Your task to perform on an android device: Empty the shopping cart on amazon. Add "logitech g502" to the cart on amazon, then select checkout. Image 0: 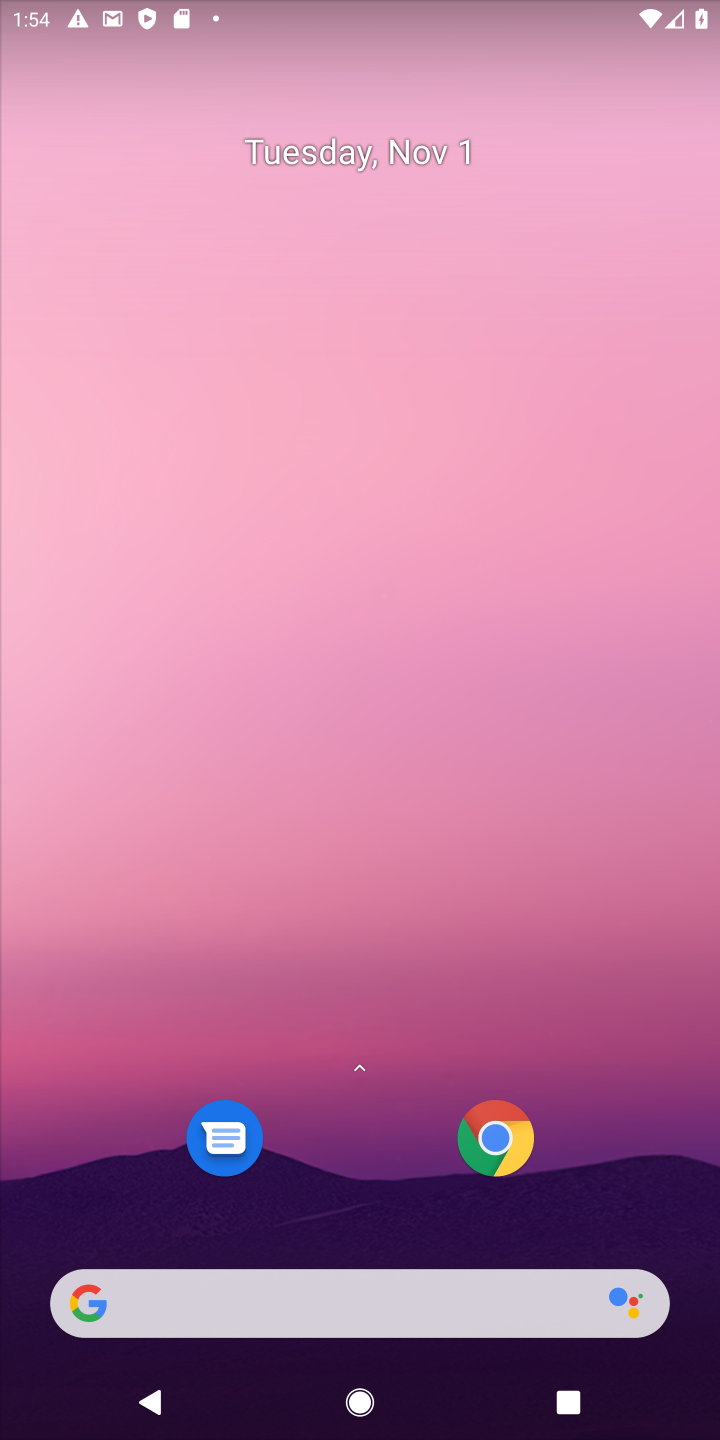
Step 0: drag from (395, 1218) to (457, 111)
Your task to perform on an android device: Empty the shopping cart on amazon. Add "logitech g502" to the cart on amazon, then select checkout. Image 1: 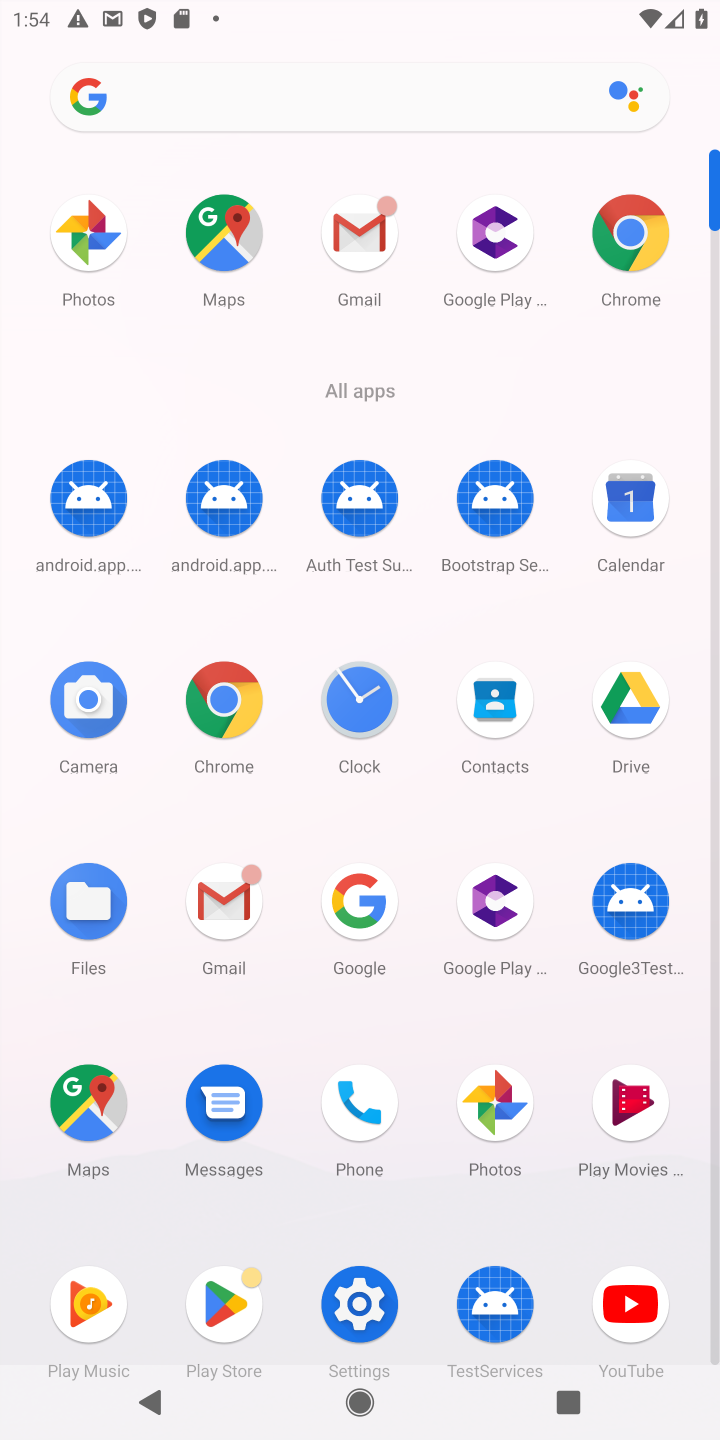
Step 1: click (234, 688)
Your task to perform on an android device: Empty the shopping cart on amazon. Add "logitech g502" to the cart on amazon, then select checkout. Image 2: 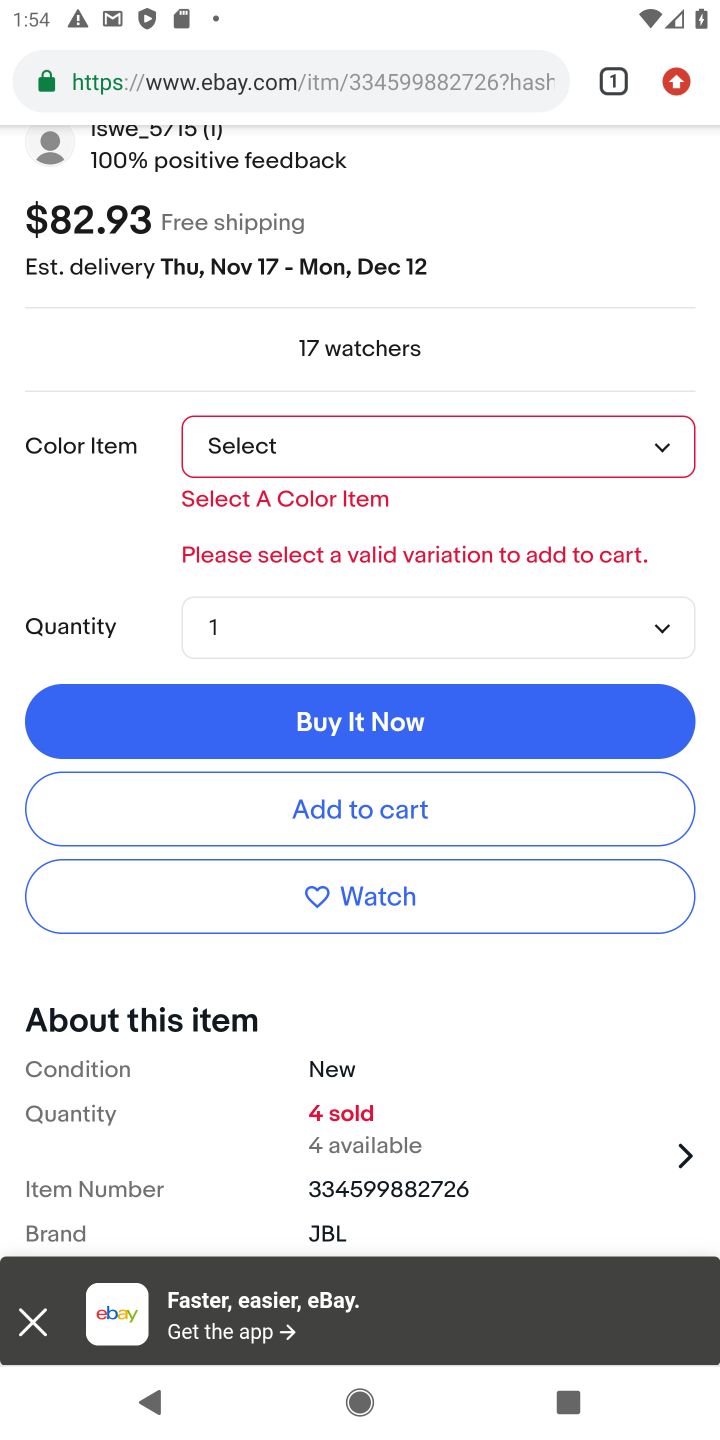
Step 2: click (328, 81)
Your task to perform on an android device: Empty the shopping cart on amazon. Add "logitech g502" to the cart on amazon, then select checkout. Image 3: 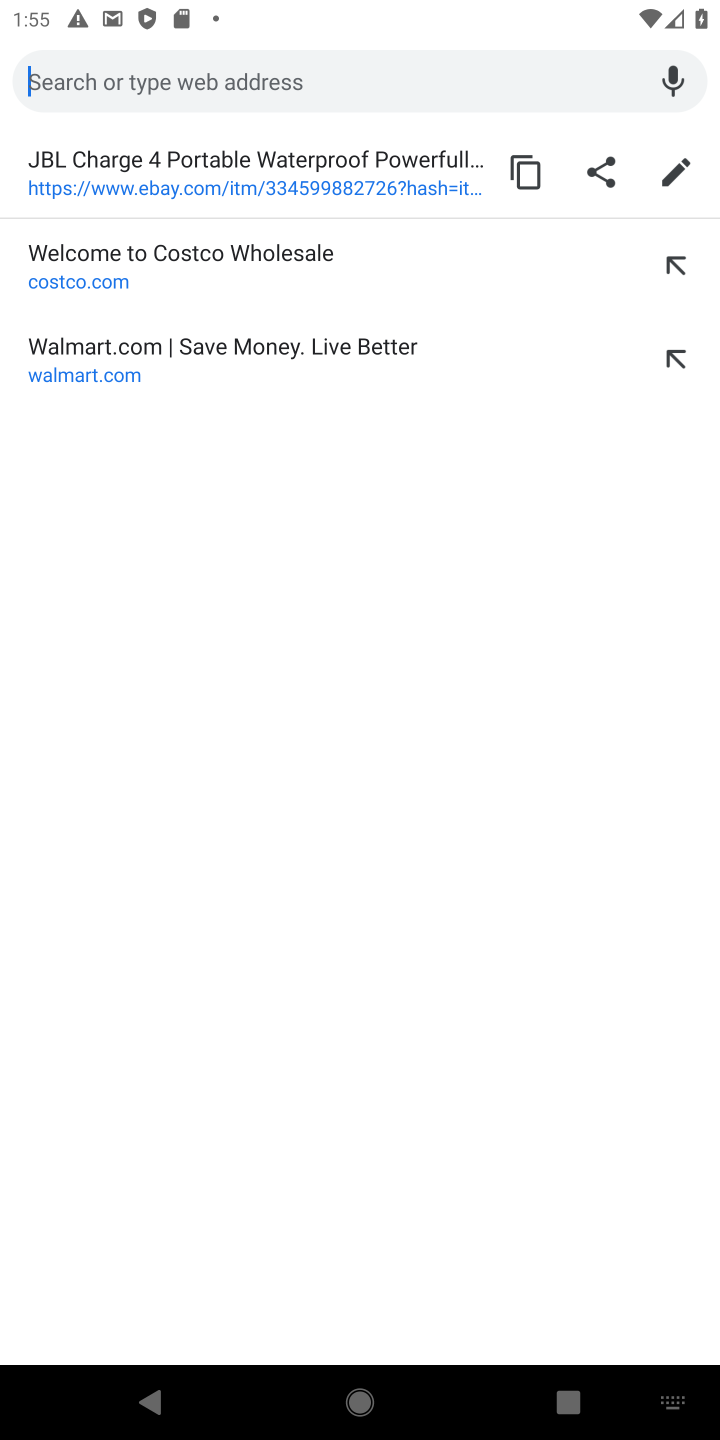
Step 3: type "amazon"
Your task to perform on an android device: Empty the shopping cart on amazon. Add "logitech g502" to the cart on amazon, then select checkout. Image 4: 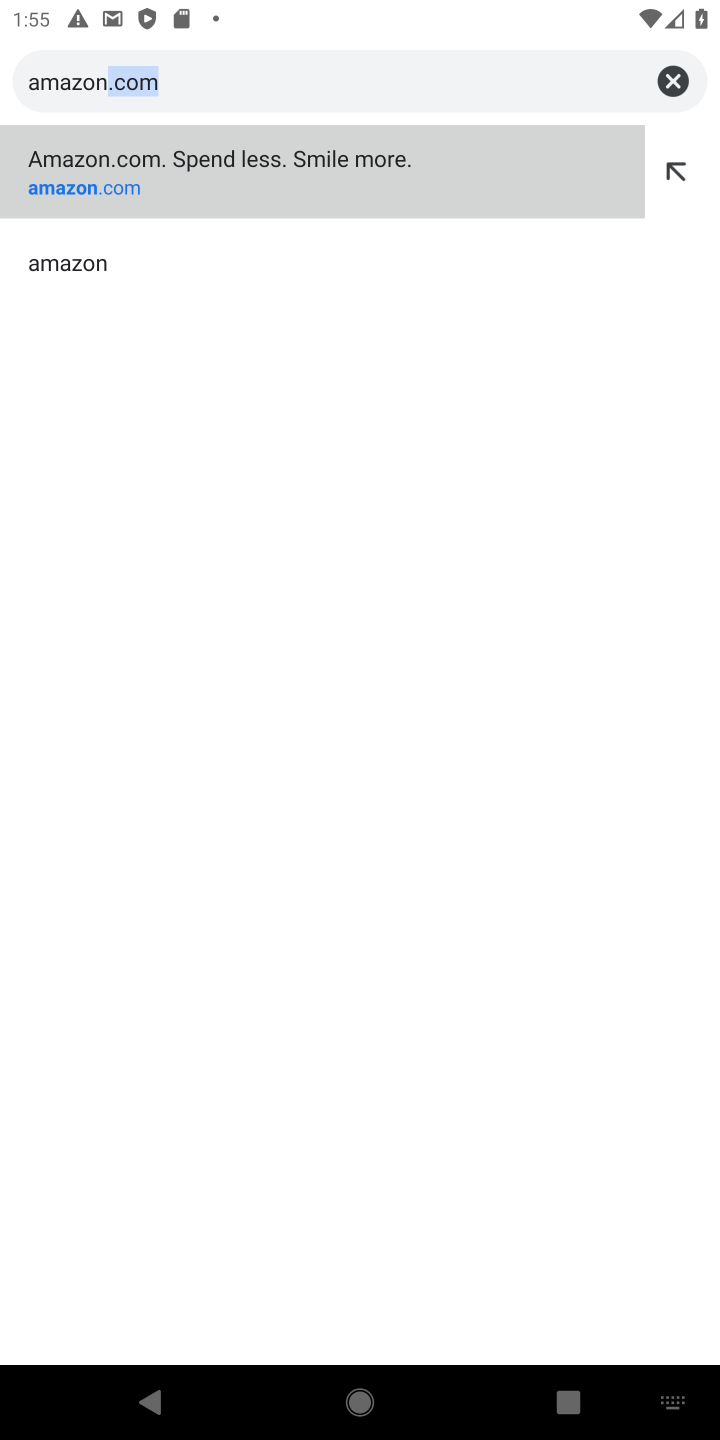
Step 4: click (69, 183)
Your task to perform on an android device: Empty the shopping cart on amazon. Add "logitech g502" to the cart on amazon, then select checkout. Image 5: 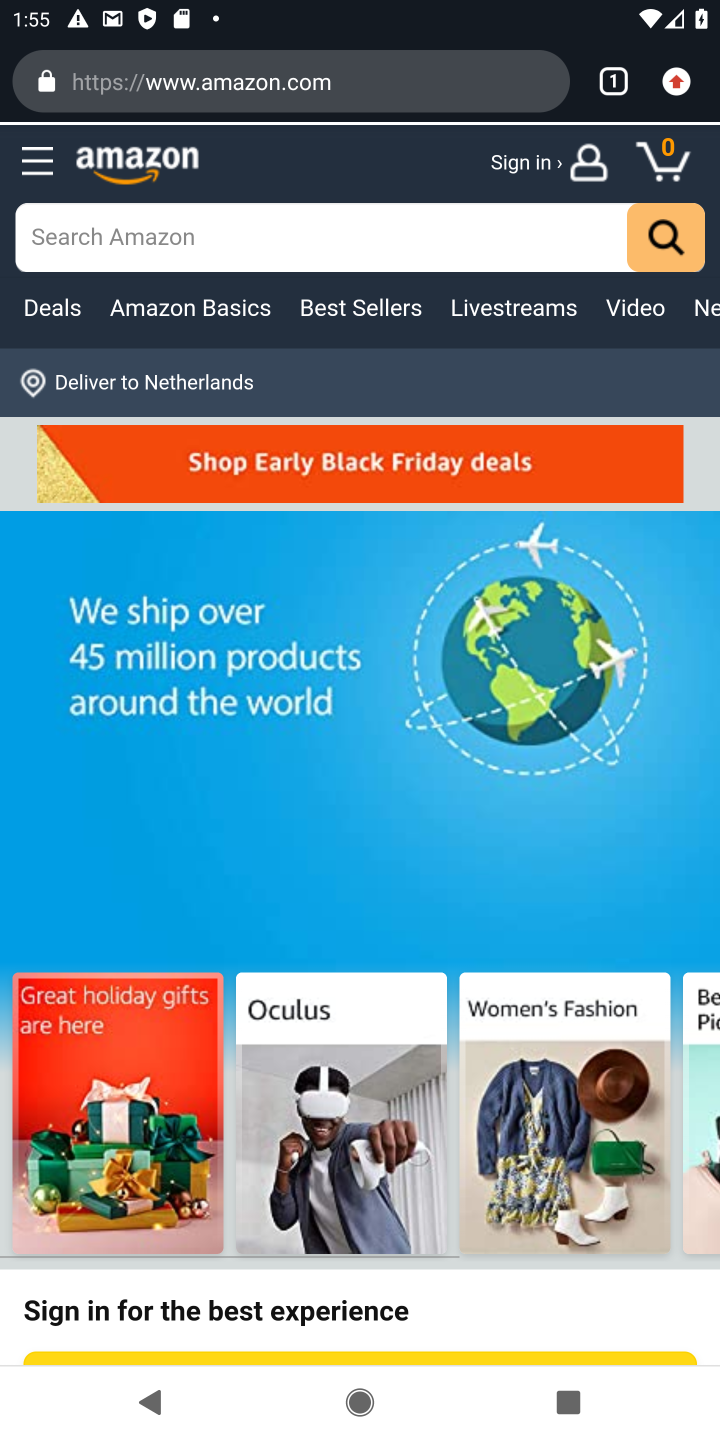
Step 5: click (394, 219)
Your task to perform on an android device: Empty the shopping cart on amazon. Add "logitech g502" to the cart on amazon, then select checkout. Image 6: 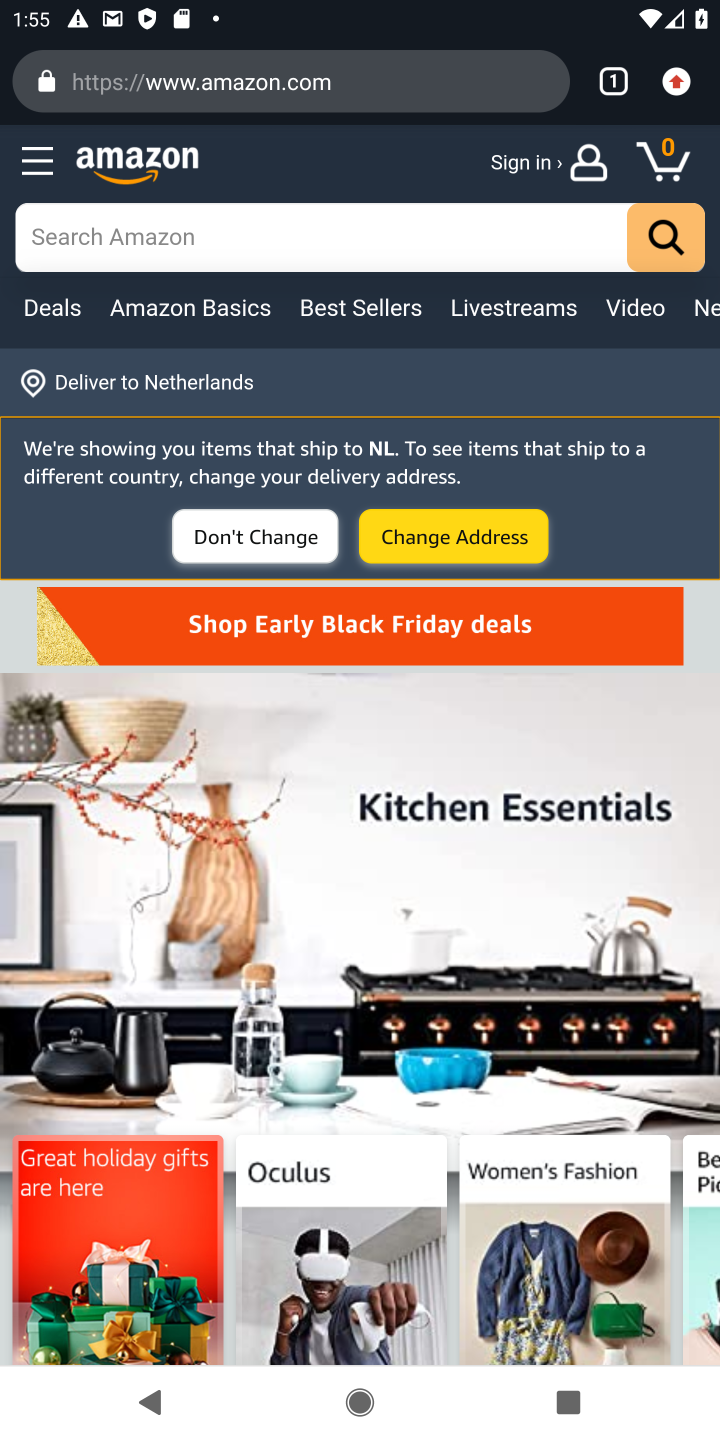
Step 6: click (280, 227)
Your task to perform on an android device: Empty the shopping cart on amazon. Add "logitech g502" to the cart on amazon, then select checkout. Image 7: 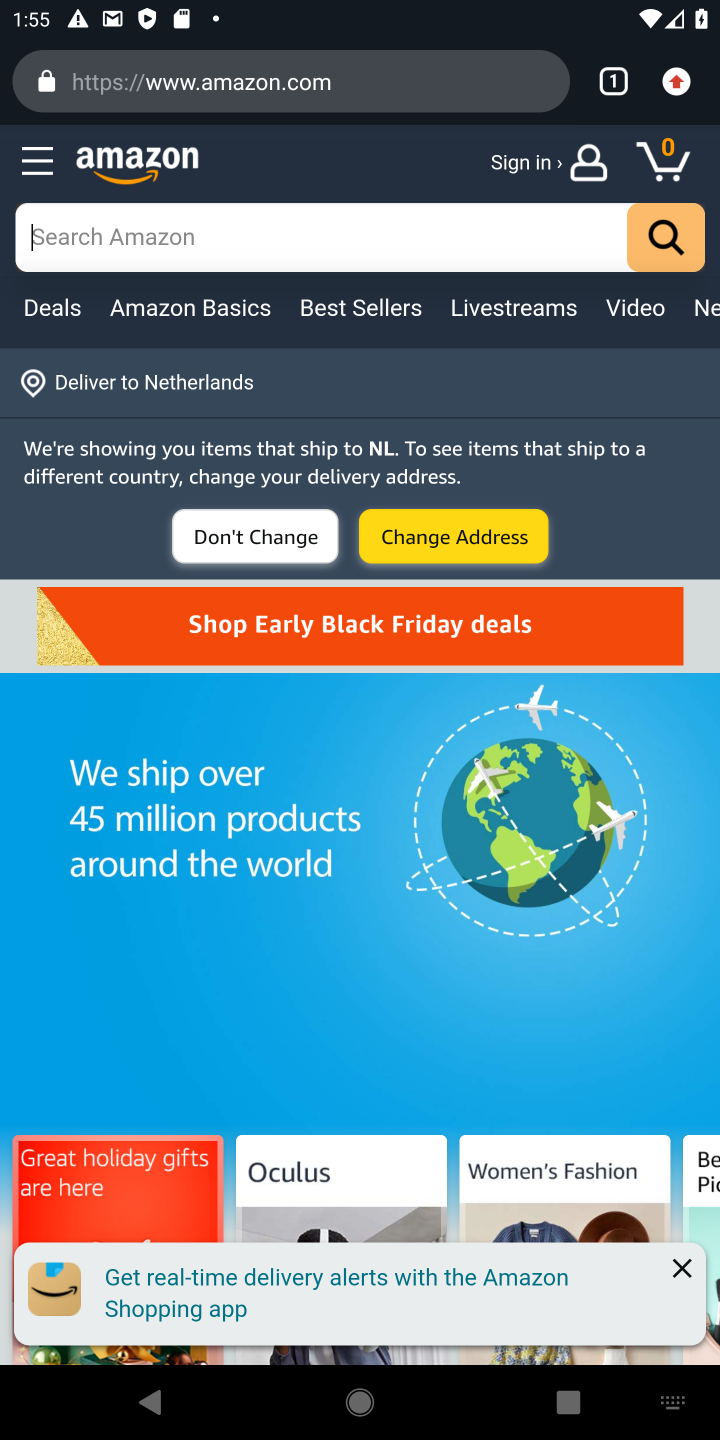
Step 7: type "logitech g502"
Your task to perform on an android device: Empty the shopping cart on amazon. Add "logitech g502" to the cart on amazon, then select checkout. Image 8: 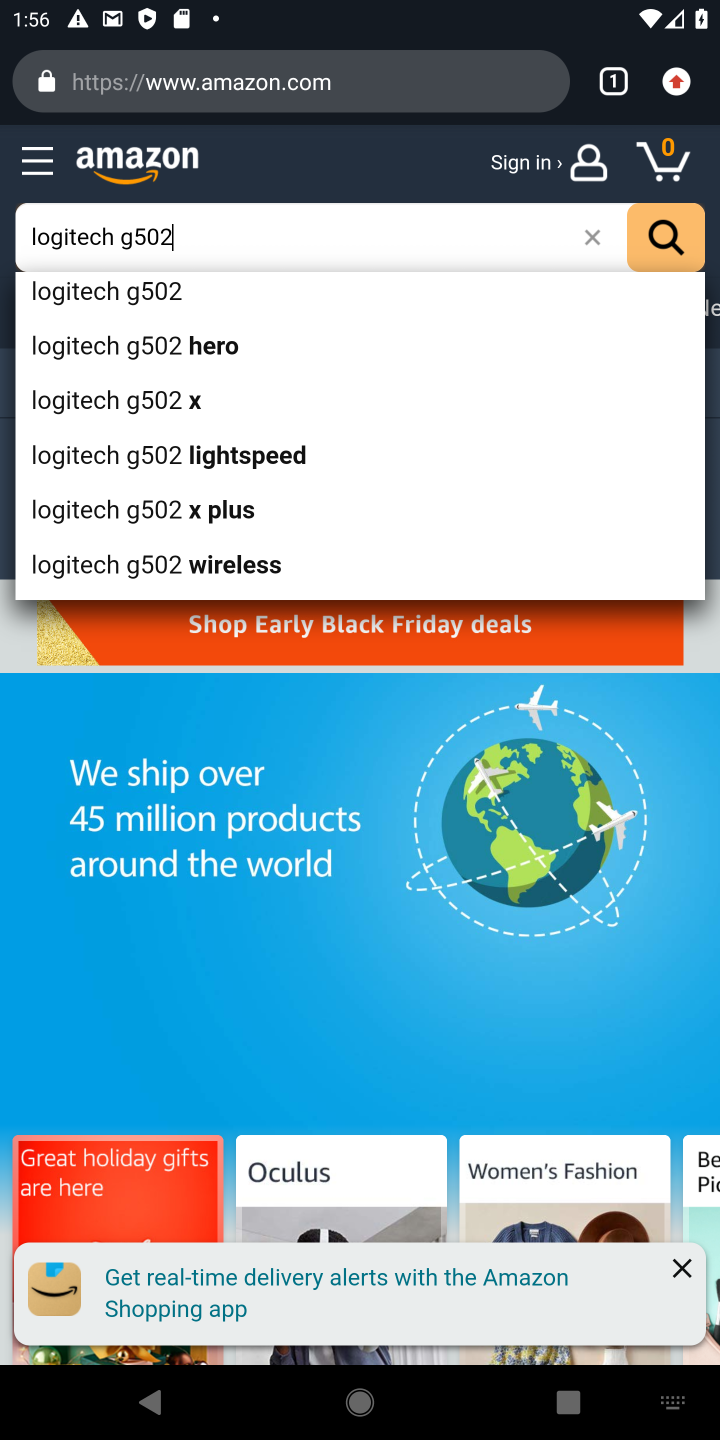
Step 8: click (91, 289)
Your task to perform on an android device: Empty the shopping cart on amazon. Add "logitech g502" to the cart on amazon, then select checkout. Image 9: 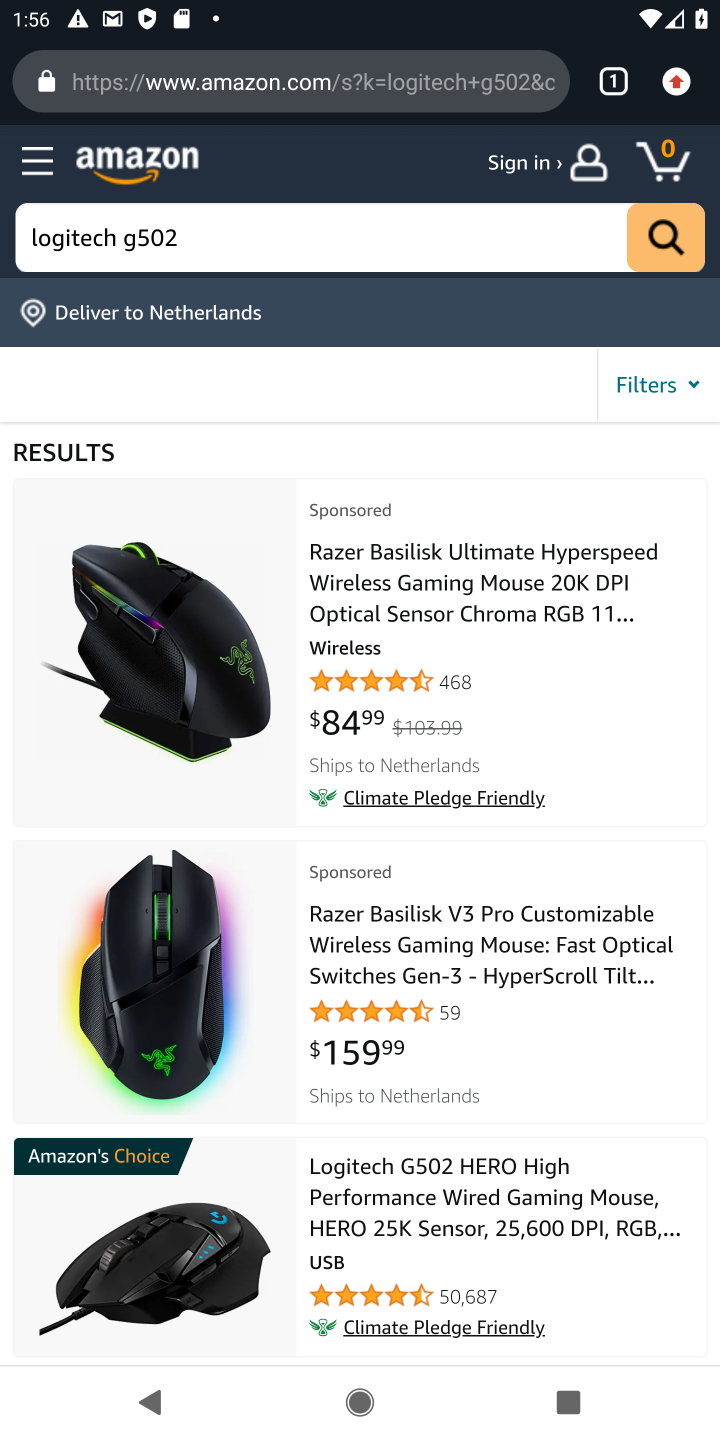
Step 9: click (185, 596)
Your task to perform on an android device: Empty the shopping cart on amazon. Add "logitech g502" to the cart on amazon, then select checkout. Image 10: 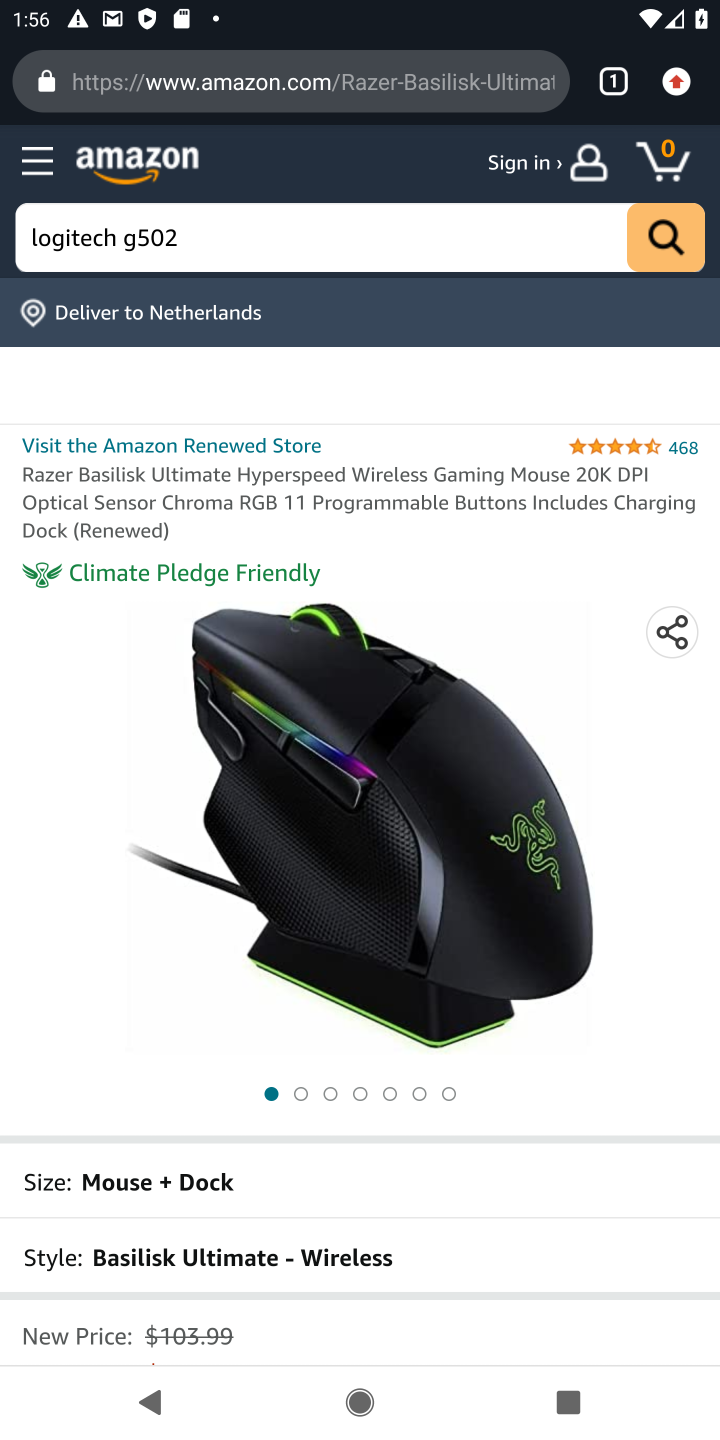
Step 10: drag from (247, 978) to (297, 362)
Your task to perform on an android device: Empty the shopping cart on amazon. Add "logitech g502" to the cart on amazon, then select checkout. Image 11: 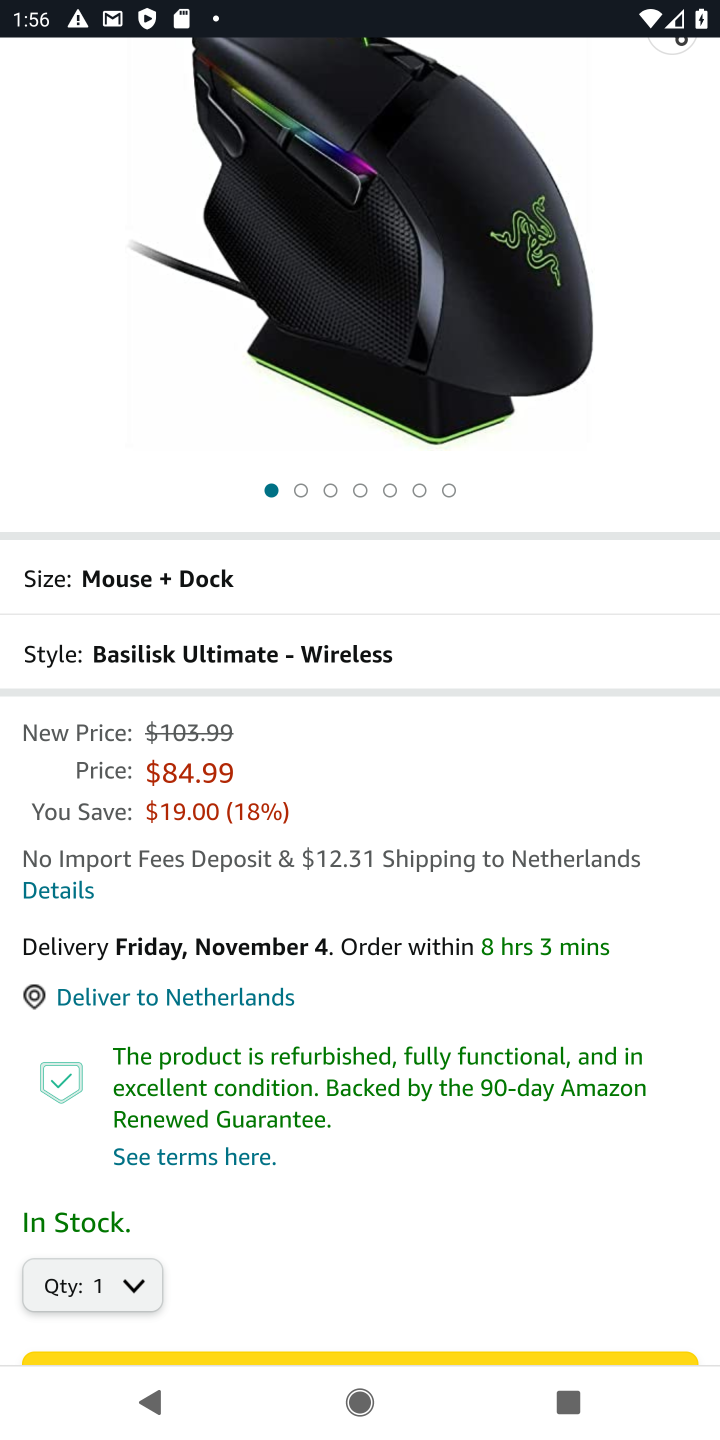
Step 11: drag from (341, 1191) to (534, 442)
Your task to perform on an android device: Empty the shopping cart on amazon. Add "logitech g502" to the cart on amazon, then select checkout. Image 12: 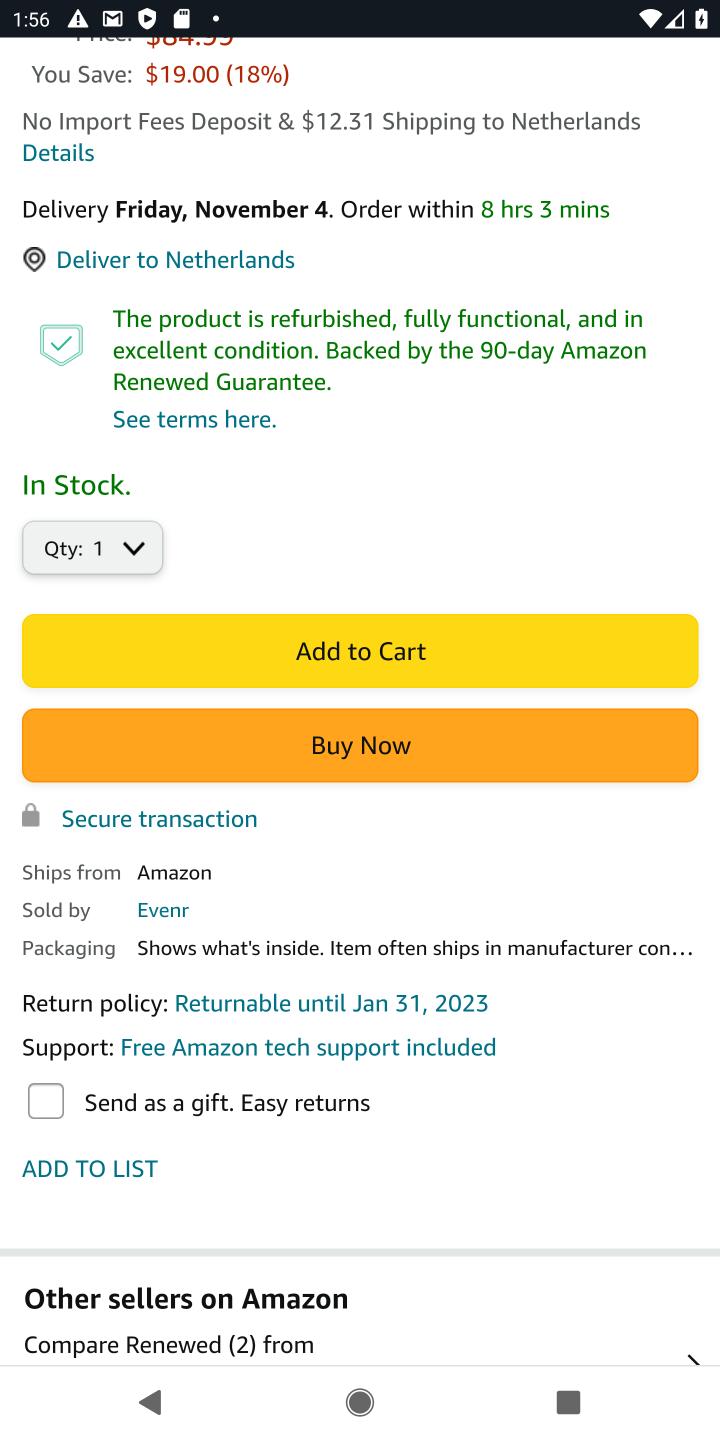
Step 12: click (378, 653)
Your task to perform on an android device: Empty the shopping cart on amazon. Add "logitech g502" to the cart on amazon, then select checkout. Image 13: 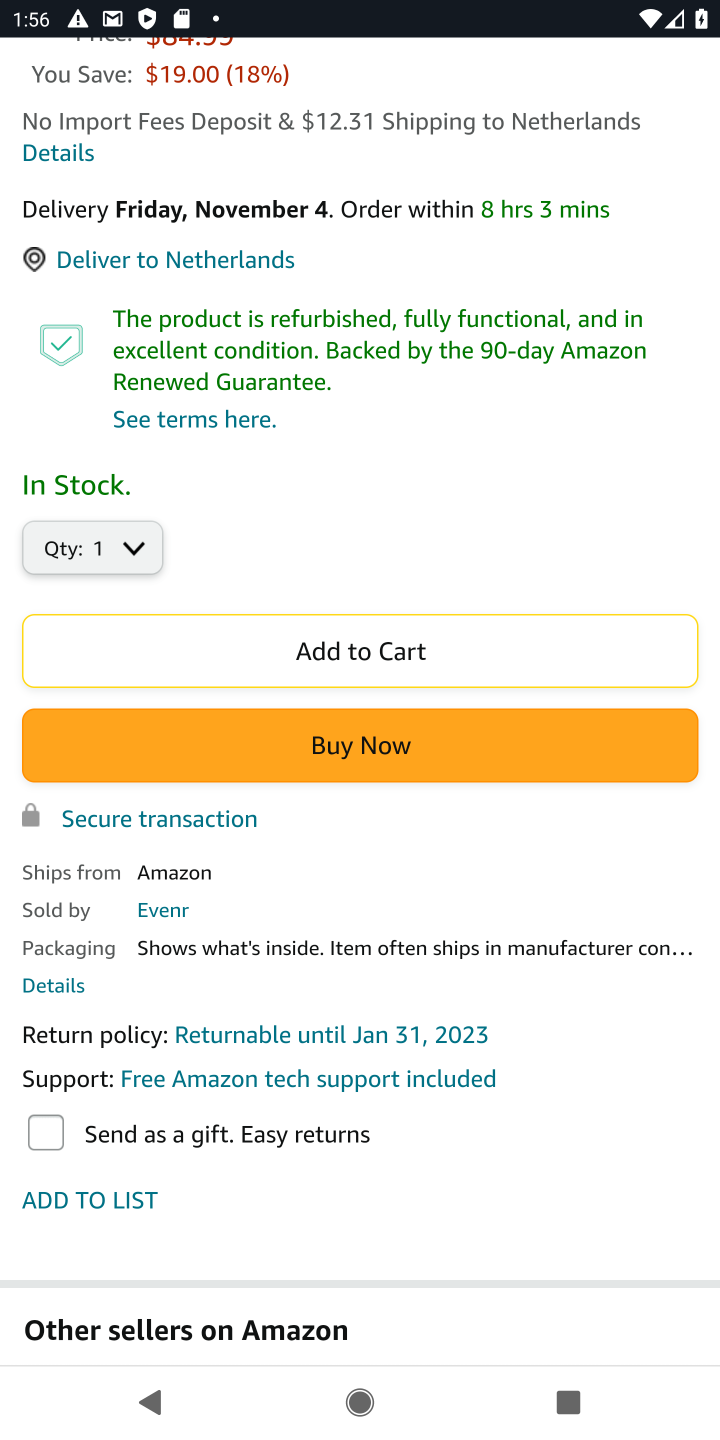
Step 13: task complete